Your task to perform on an android device: What's the weather today? Image 0: 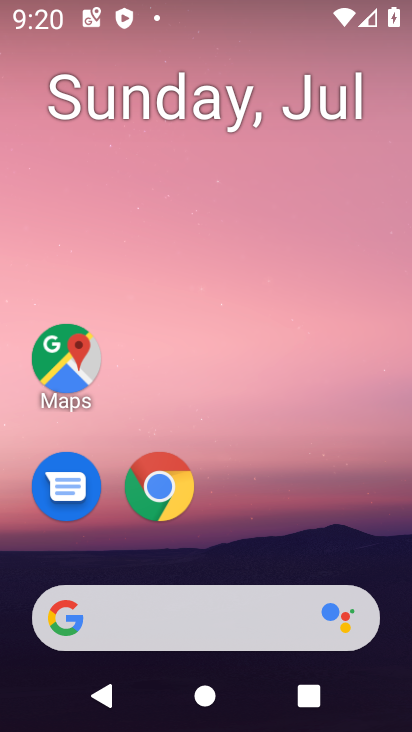
Step 0: press home button
Your task to perform on an android device: What's the weather today? Image 1: 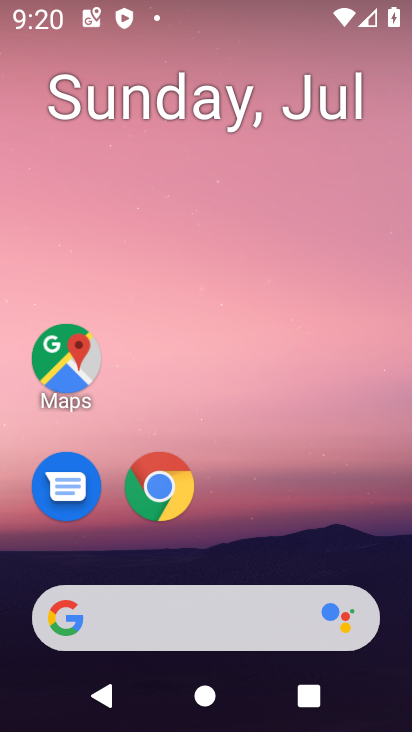
Step 1: click (227, 616)
Your task to perform on an android device: What's the weather today? Image 2: 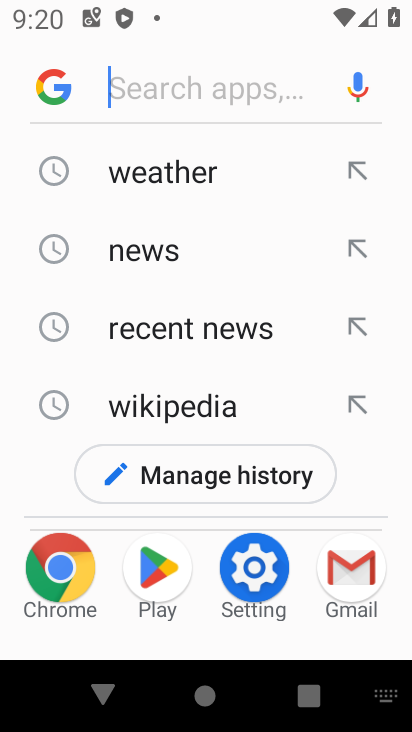
Step 2: click (187, 176)
Your task to perform on an android device: What's the weather today? Image 3: 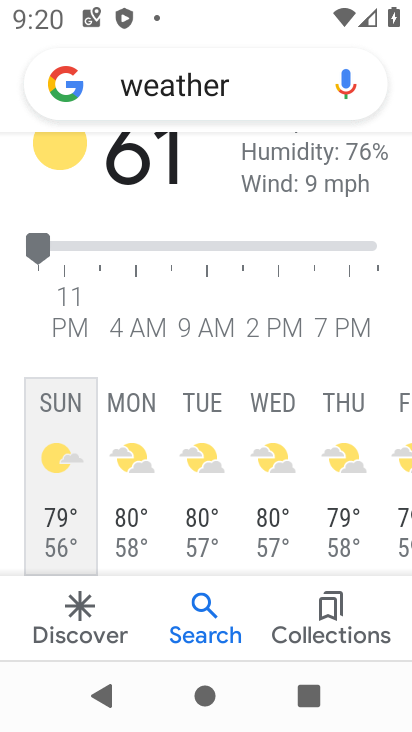
Step 3: click (155, 402)
Your task to perform on an android device: What's the weather today? Image 4: 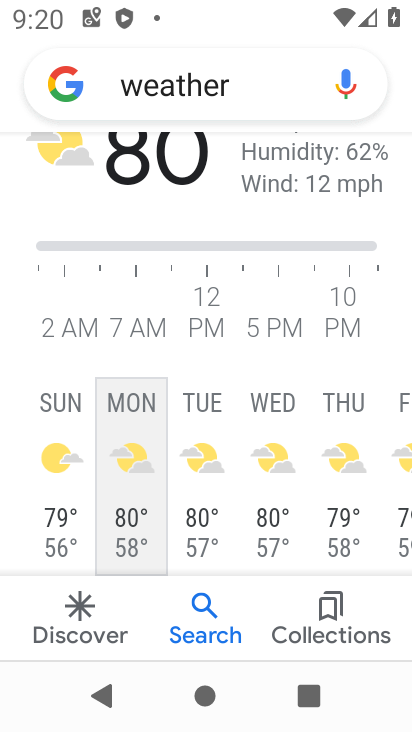
Step 4: task complete